Your task to perform on an android device: Open the web browser Image 0: 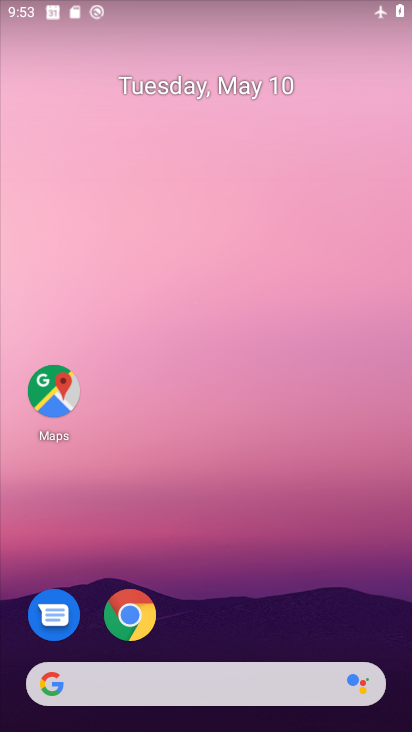
Step 0: click (219, 231)
Your task to perform on an android device: Open the web browser Image 1: 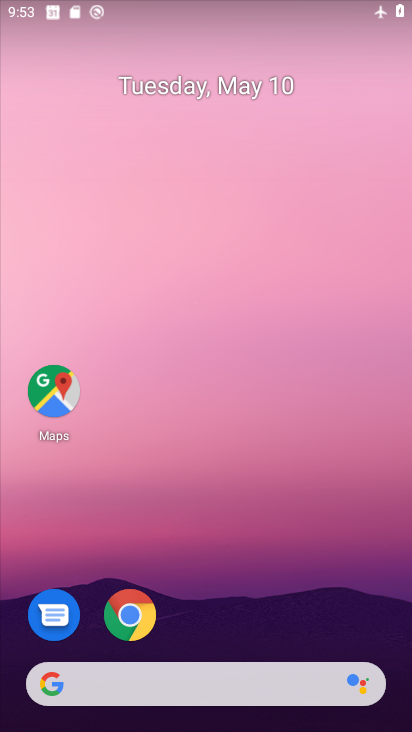
Step 1: click (135, 614)
Your task to perform on an android device: Open the web browser Image 2: 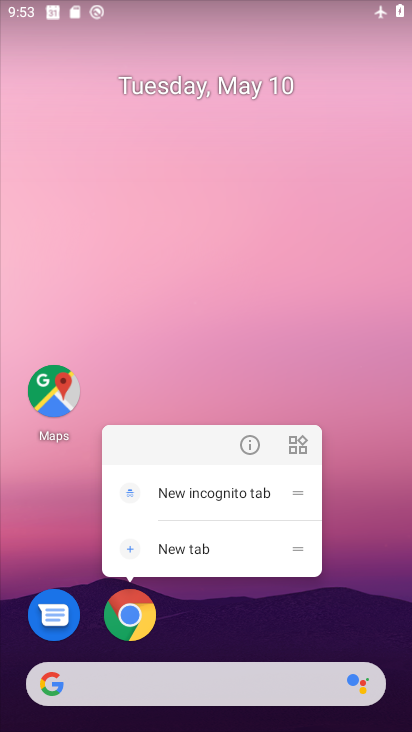
Step 2: click (252, 441)
Your task to perform on an android device: Open the web browser Image 3: 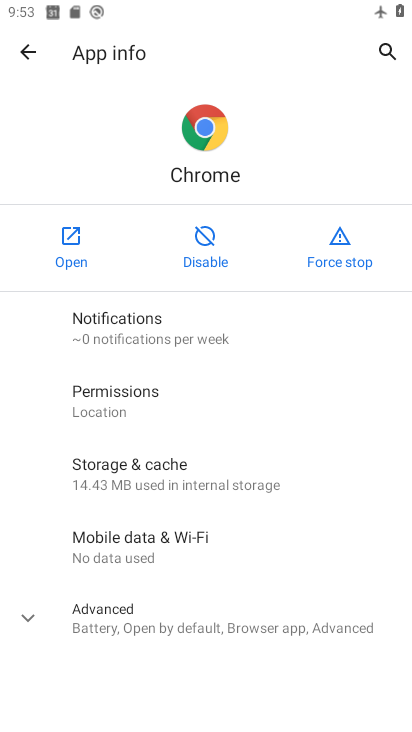
Step 3: click (69, 254)
Your task to perform on an android device: Open the web browser Image 4: 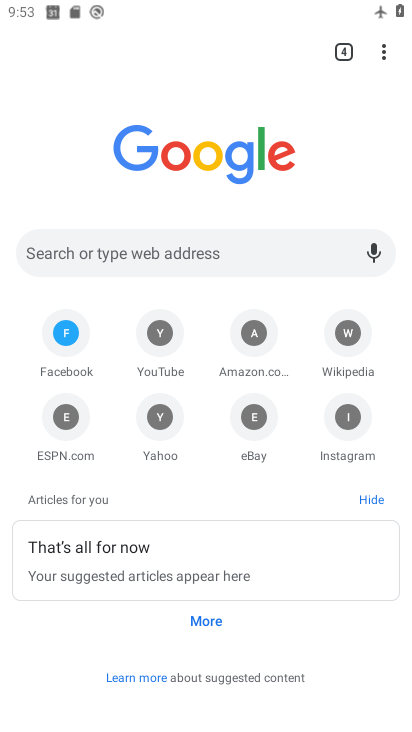
Step 4: task complete